Your task to perform on an android device: Go to notification settings Image 0: 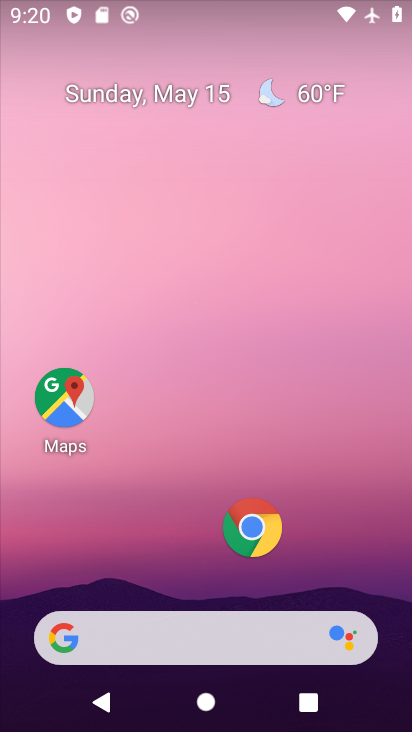
Step 0: press home button
Your task to perform on an android device: Go to notification settings Image 1: 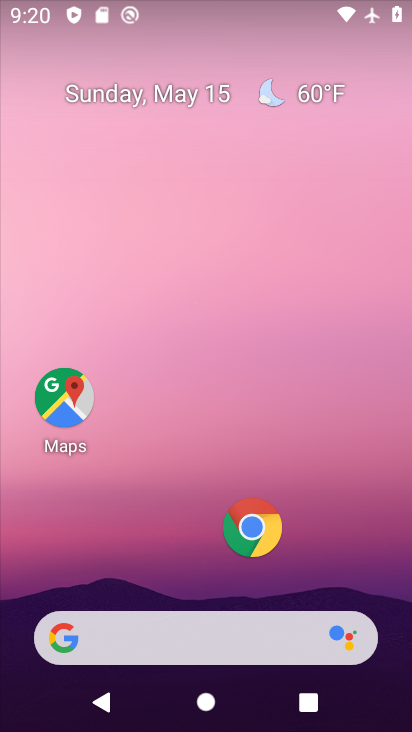
Step 1: drag from (195, 583) to (243, 69)
Your task to perform on an android device: Go to notification settings Image 2: 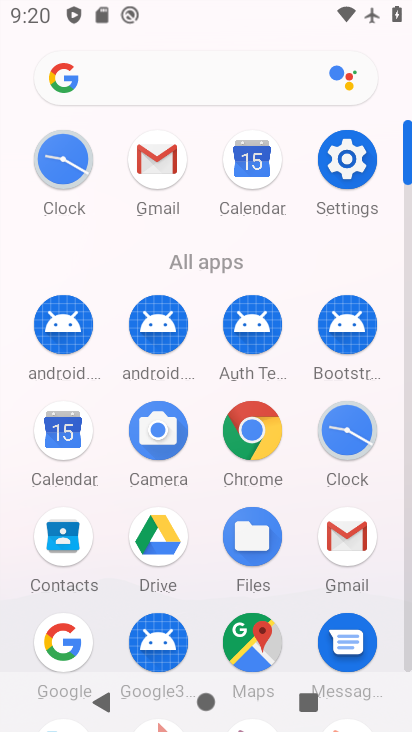
Step 2: click (346, 159)
Your task to perform on an android device: Go to notification settings Image 3: 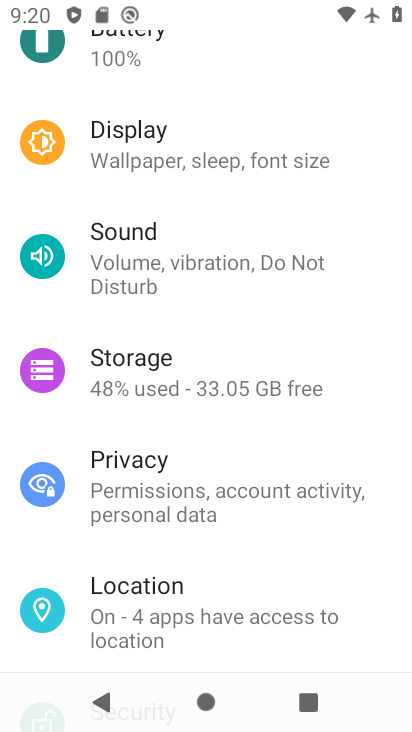
Step 3: drag from (173, 130) to (166, 686)
Your task to perform on an android device: Go to notification settings Image 4: 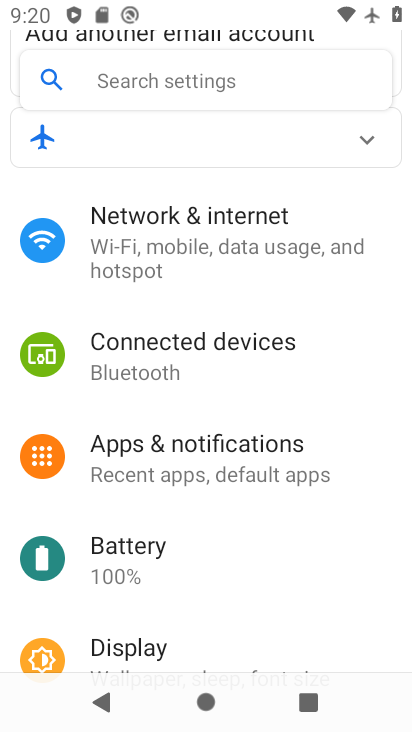
Step 4: click (180, 454)
Your task to perform on an android device: Go to notification settings Image 5: 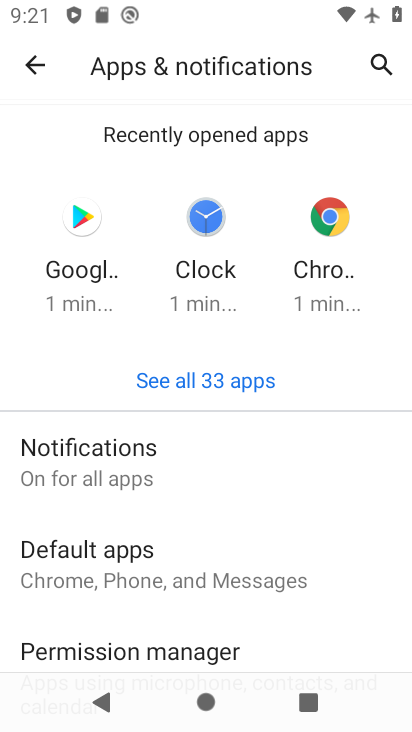
Step 5: click (173, 465)
Your task to perform on an android device: Go to notification settings Image 6: 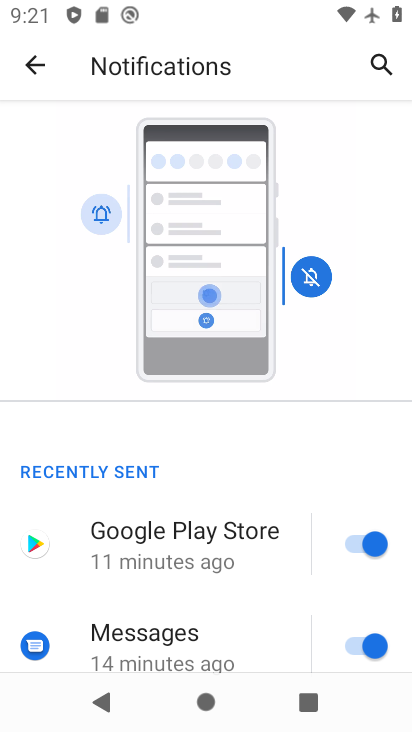
Step 6: drag from (228, 641) to (242, 155)
Your task to perform on an android device: Go to notification settings Image 7: 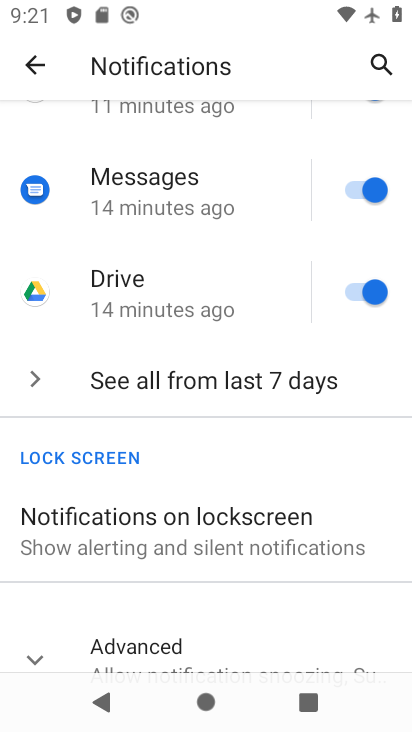
Step 7: click (64, 646)
Your task to perform on an android device: Go to notification settings Image 8: 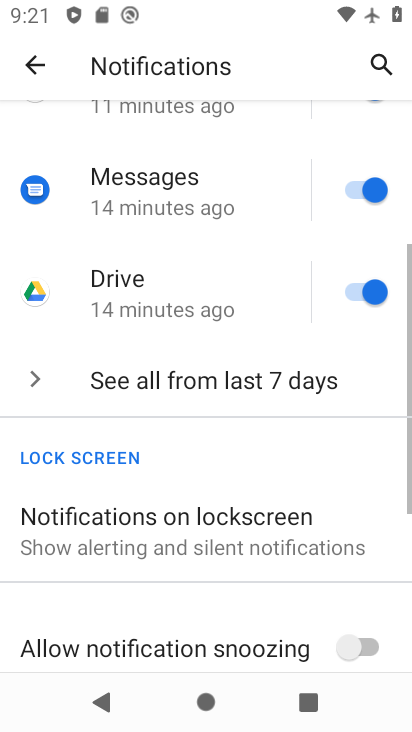
Step 8: task complete